Your task to perform on an android device: check google app version Image 0: 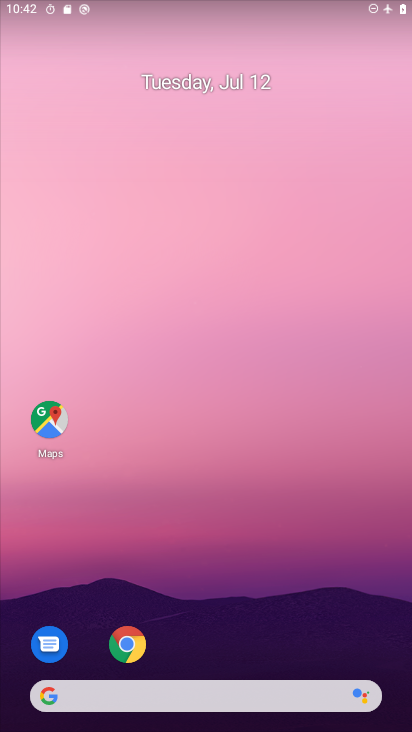
Step 0: drag from (216, 616) to (217, 214)
Your task to perform on an android device: check google app version Image 1: 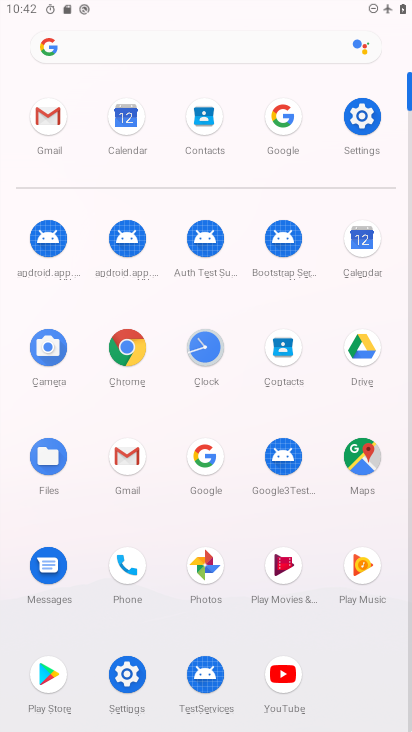
Step 1: click (197, 466)
Your task to perform on an android device: check google app version Image 2: 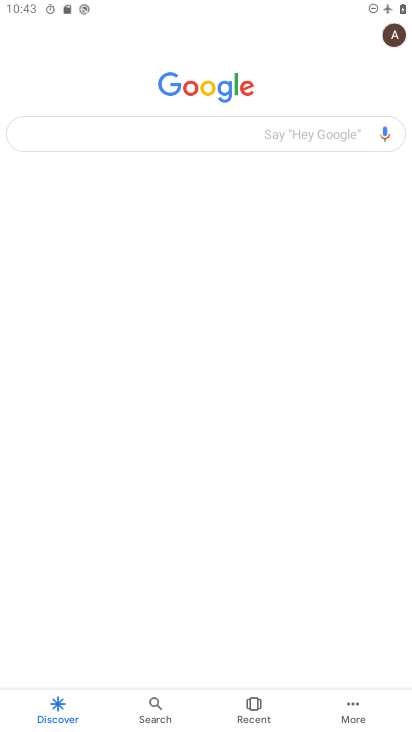
Step 2: click (367, 709)
Your task to perform on an android device: check google app version Image 3: 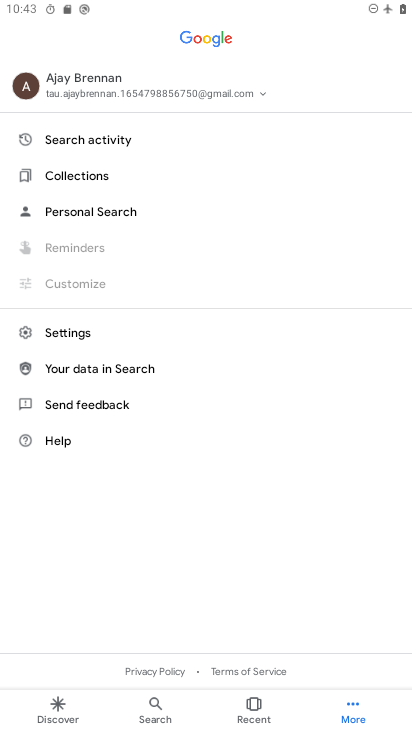
Step 3: click (88, 329)
Your task to perform on an android device: check google app version Image 4: 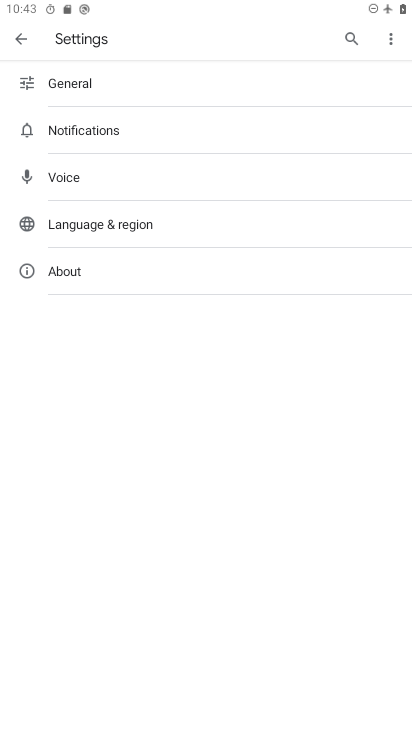
Step 4: click (106, 267)
Your task to perform on an android device: check google app version Image 5: 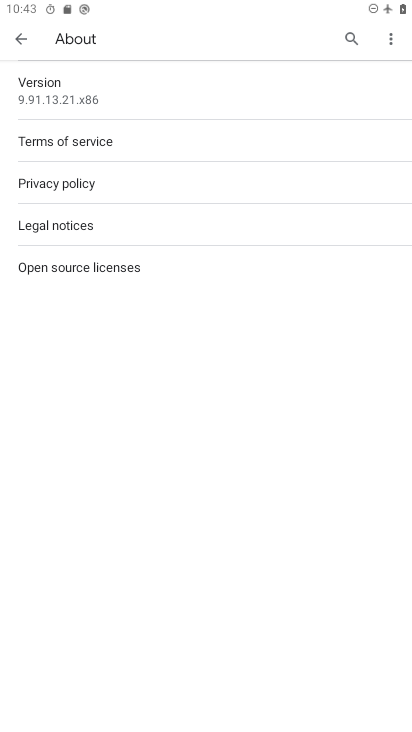
Step 5: click (106, 71)
Your task to perform on an android device: check google app version Image 6: 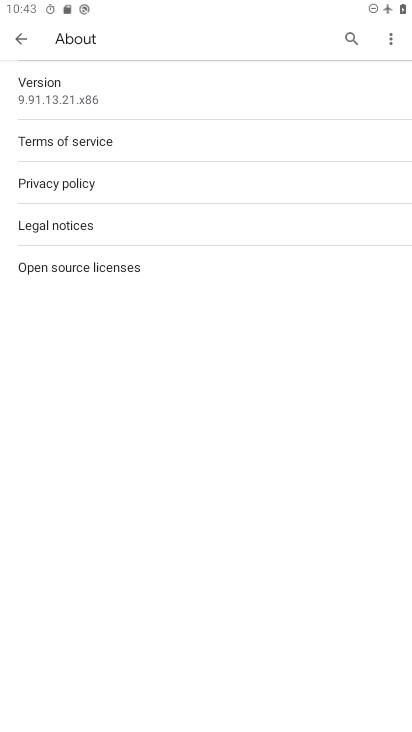
Step 6: click (98, 86)
Your task to perform on an android device: check google app version Image 7: 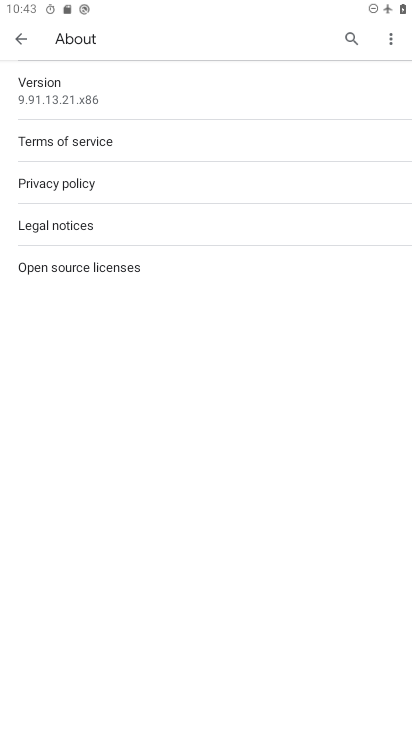
Step 7: task complete